Your task to perform on an android device: stop showing notifications on the lock screen Image 0: 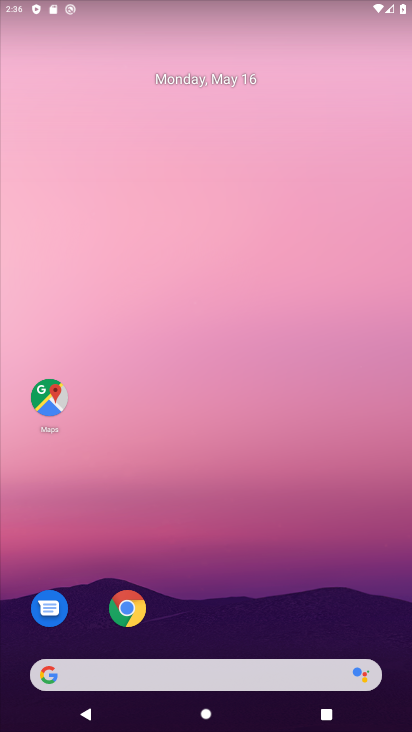
Step 0: drag from (243, 605) to (221, 164)
Your task to perform on an android device: stop showing notifications on the lock screen Image 1: 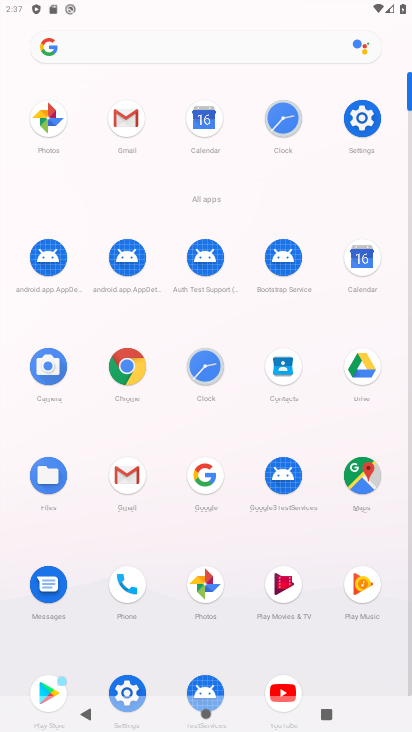
Step 1: click (362, 118)
Your task to perform on an android device: stop showing notifications on the lock screen Image 2: 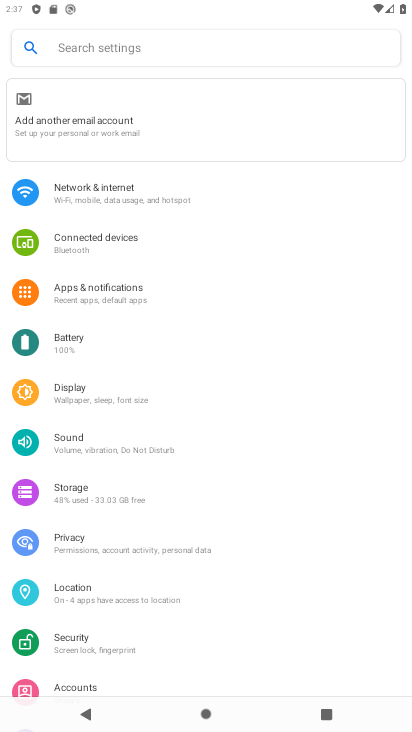
Step 2: click (101, 301)
Your task to perform on an android device: stop showing notifications on the lock screen Image 3: 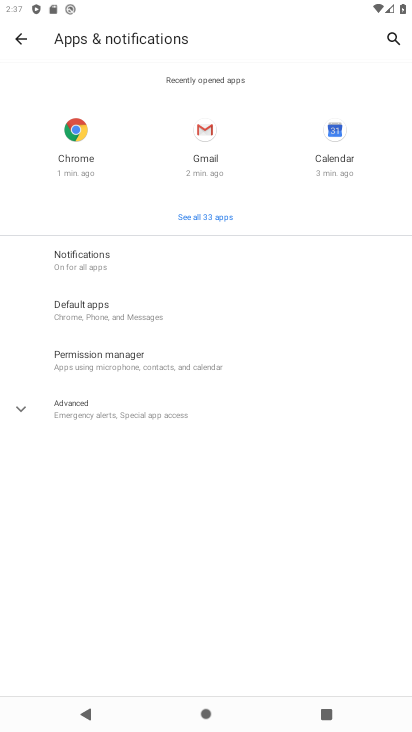
Step 3: click (93, 262)
Your task to perform on an android device: stop showing notifications on the lock screen Image 4: 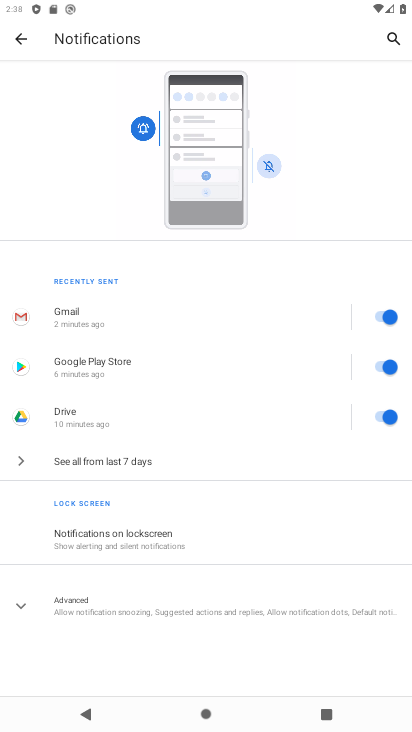
Step 4: click (143, 525)
Your task to perform on an android device: stop showing notifications on the lock screen Image 5: 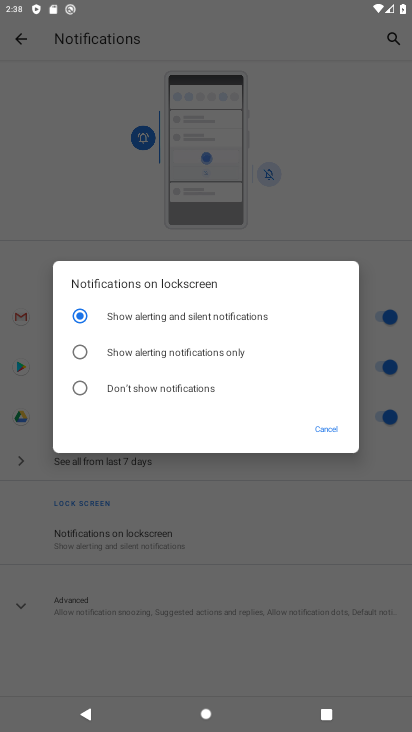
Step 5: click (78, 393)
Your task to perform on an android device: stop showing notifications on the lock screen Image 6: 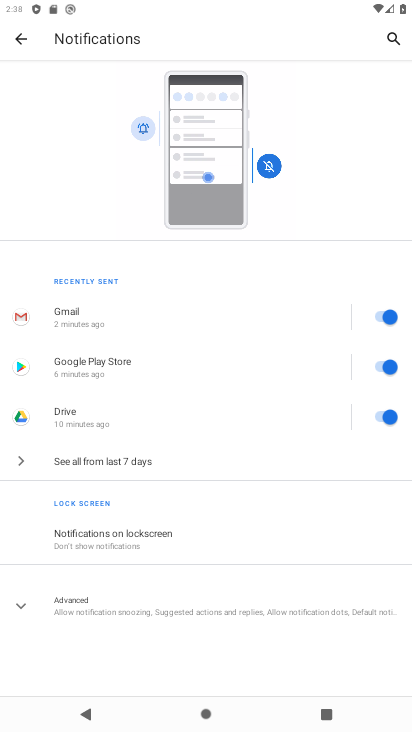
Step 6: task complete